Your task to perform on an android device: toggle pop-ups in chrome Image 0: 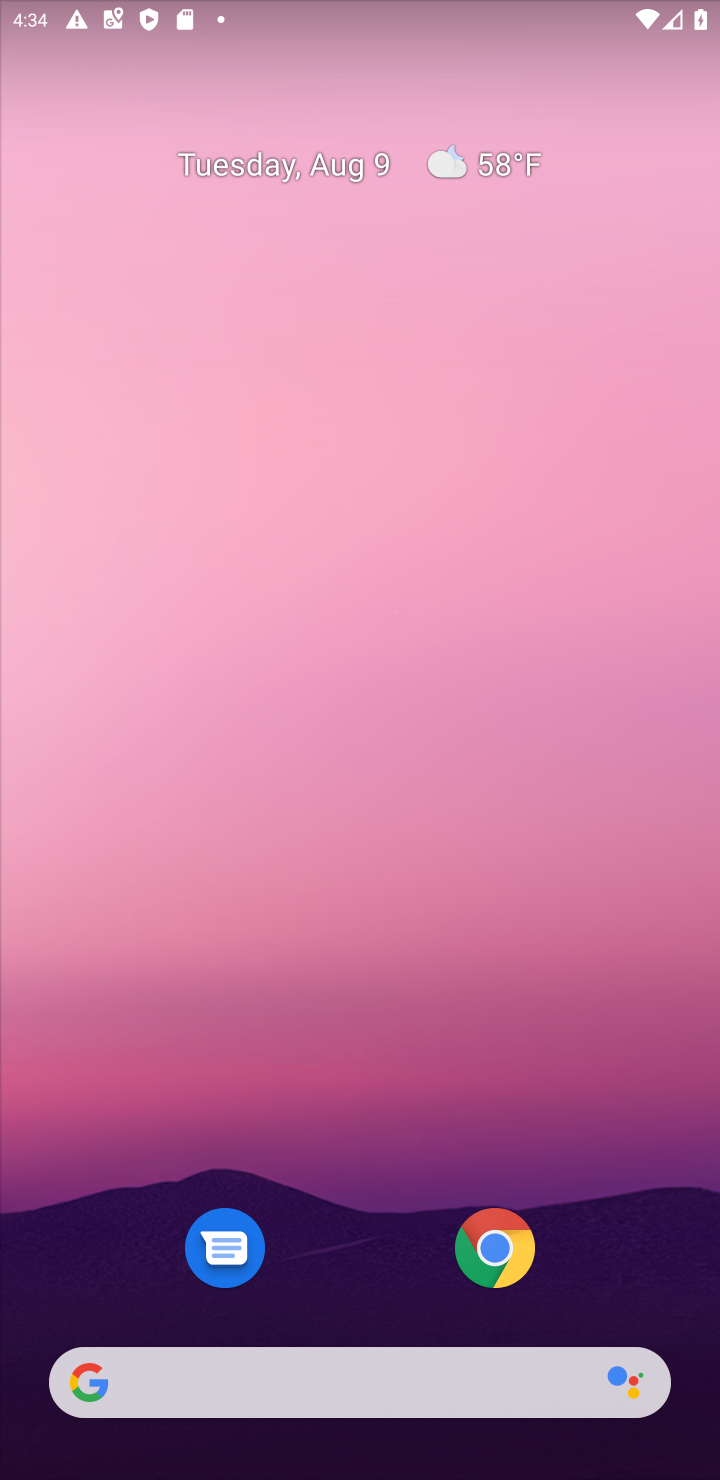
Step 0: drag from (385, 1256) to (243, 353)
Your task to perform on an android device: toggle pop-ups in chrome Image 1: 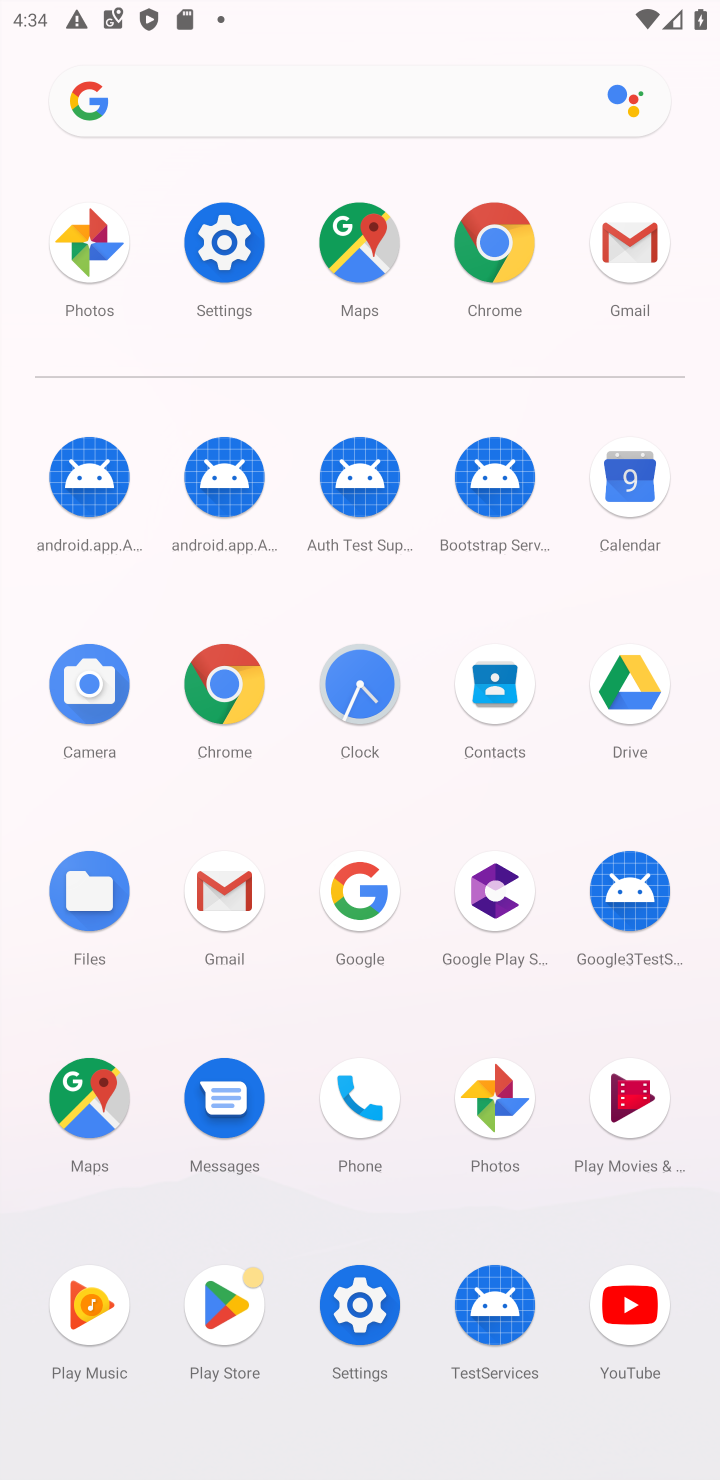
Step 1: click (237, 688)
Your task to perform on an android device: toggle pop-ups in chrome Image 2: 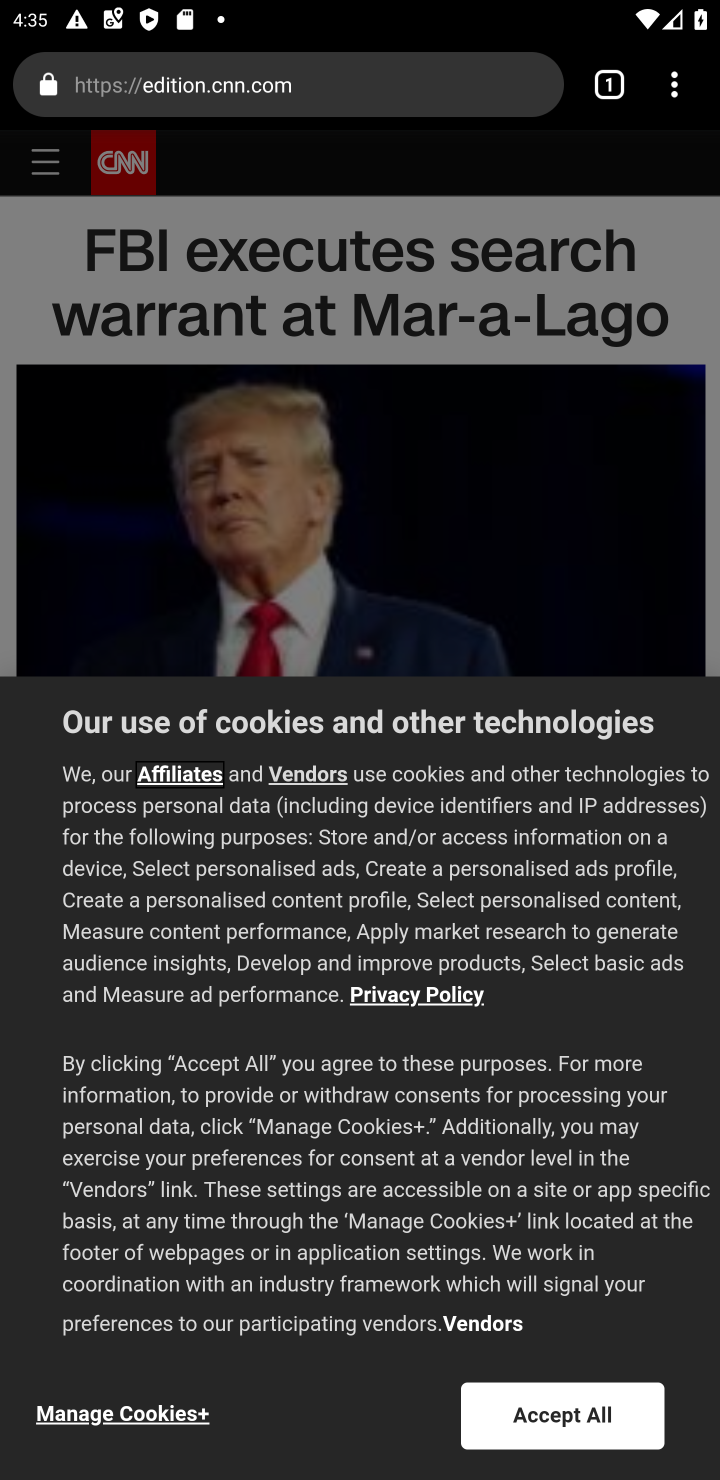
Step 2: drag from (662, 88) to (346, 1019)
Your task to perform on an android device: toggle pop-ups in chrome Image 3: 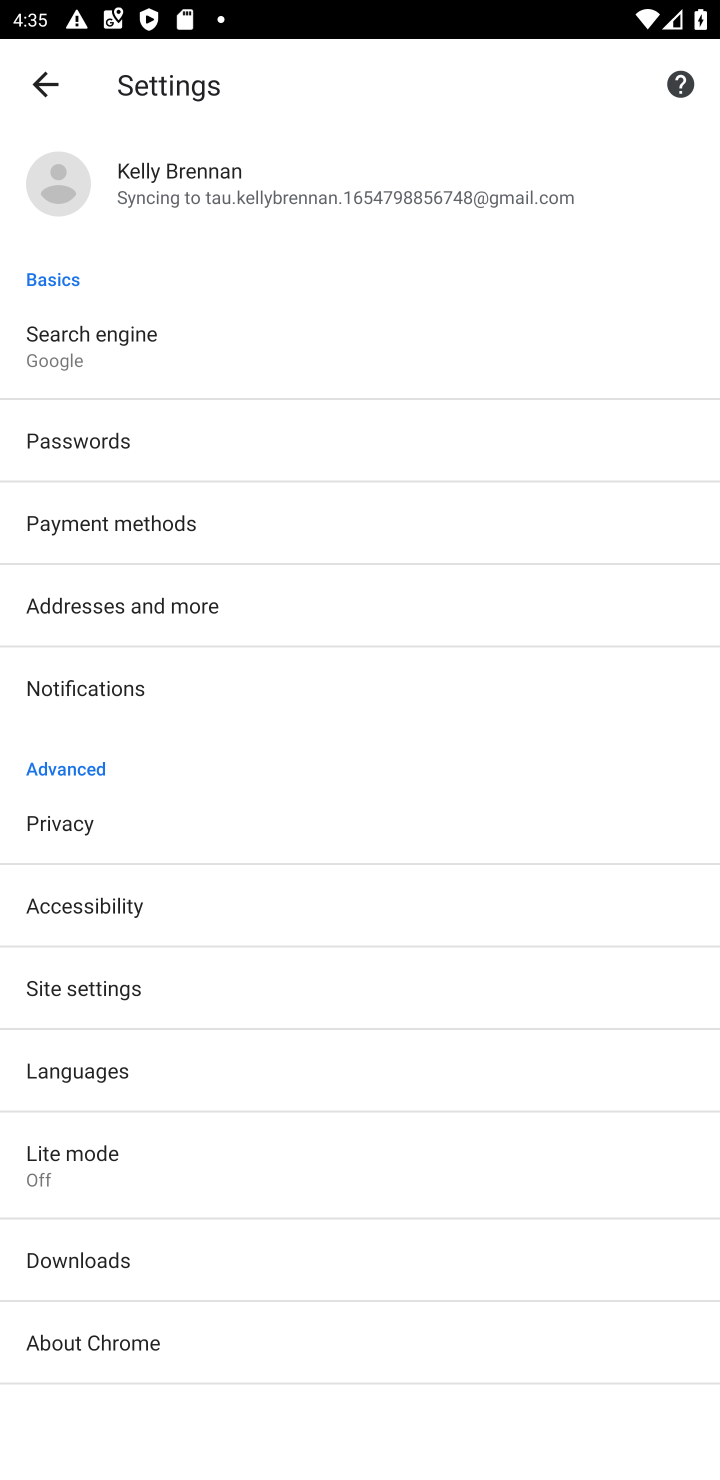
Step 3: click (89, 981)
Your task to perform on an android device: toggle pop-ups in chrome Image 4: 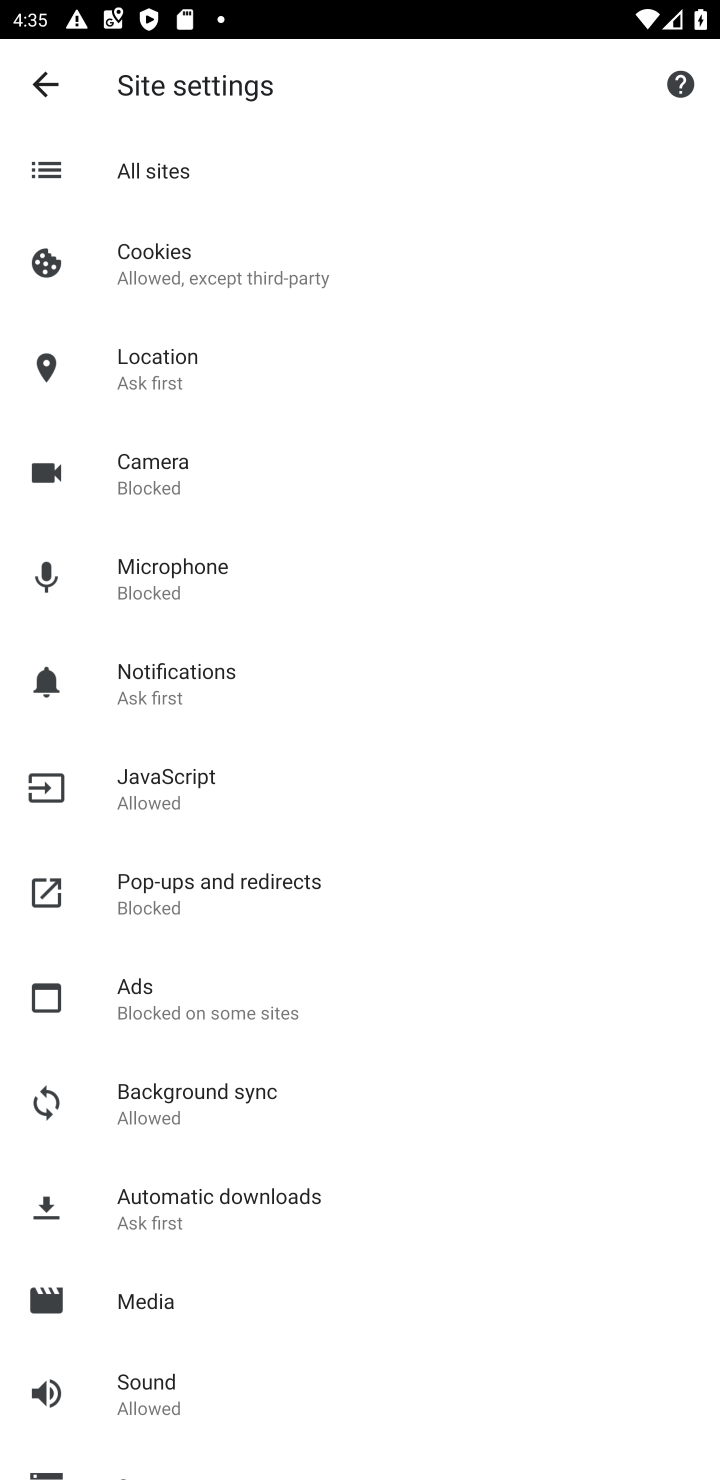
Step 4: click (142, 898)
Your task to perform on an android device: toggle pop-ups in chrome Image 5: 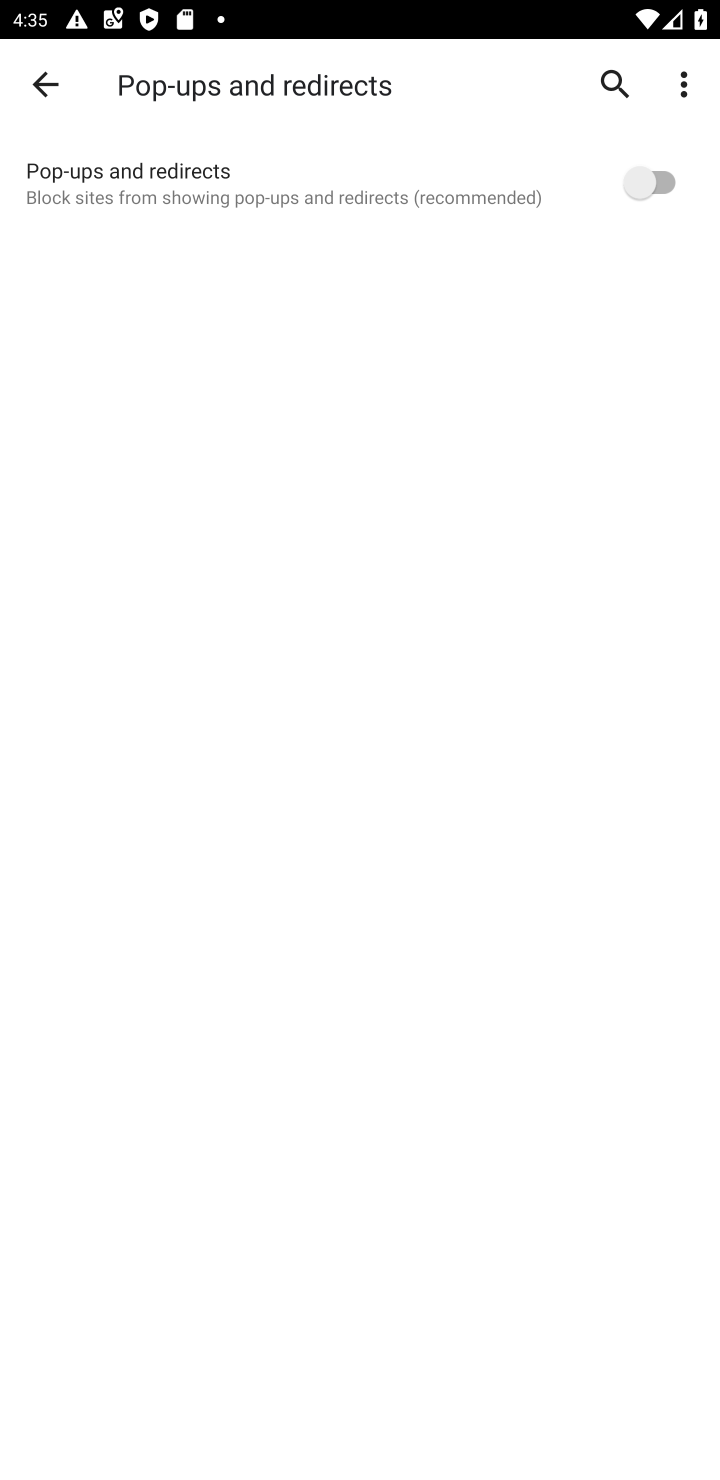
Step 5: click (649, 184)
Your task to perform on an android device: toggle pop-ups in chrome Image 6: 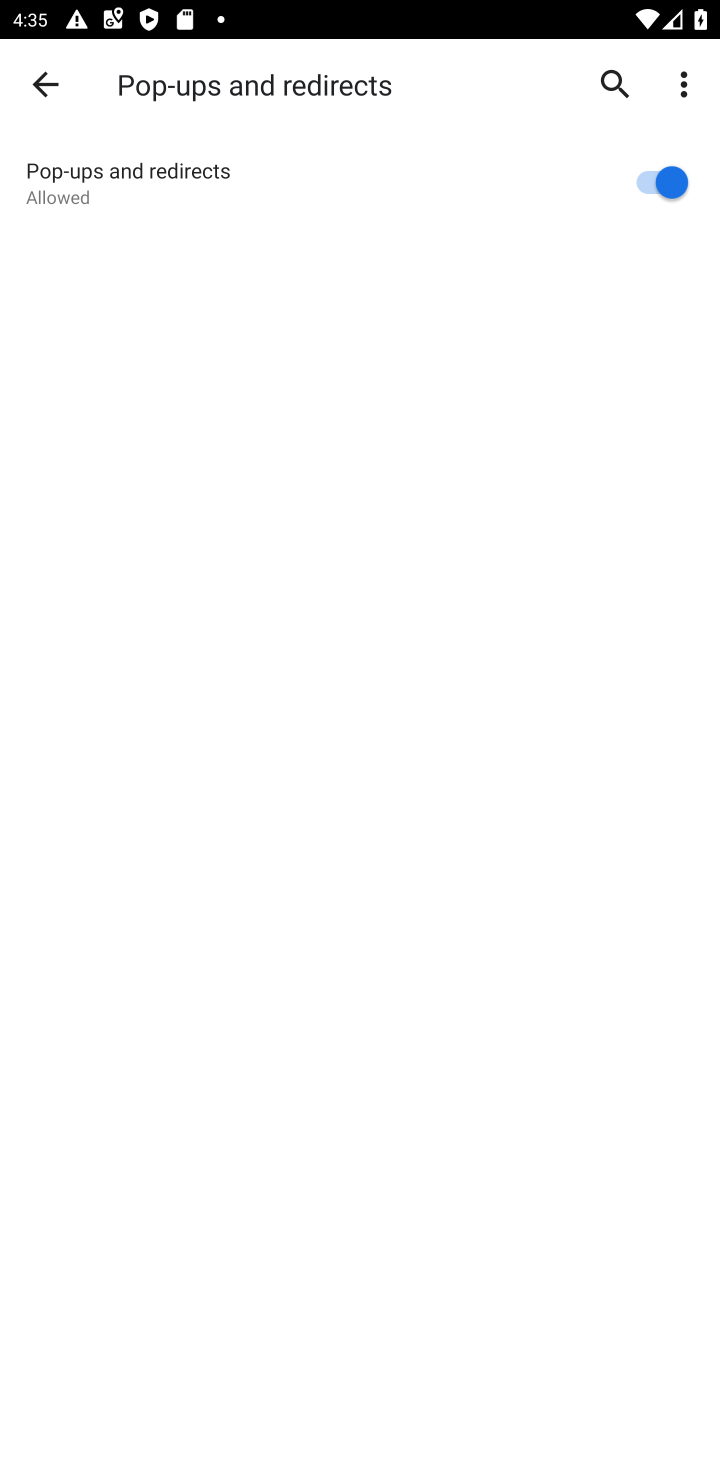
Step 6: task complete